Your task to perform on an android device: open a bookmark in the chrome app Image 0: 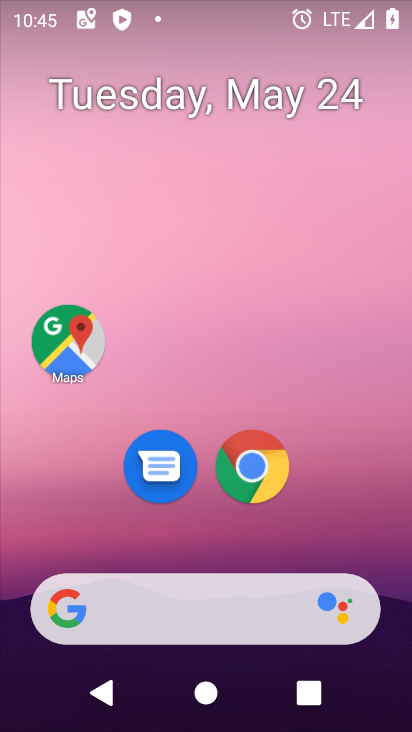
Step 0: drag from (384, 562) to (389, 175)
Your task to perform on an android device: open a bookmark in the chrome app Image 1: 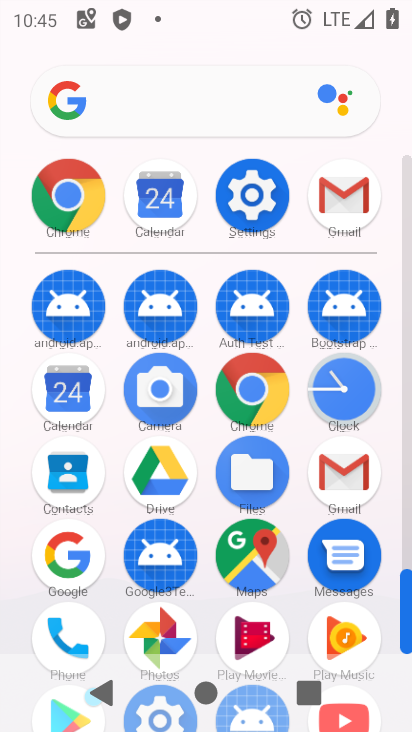
Step 1: click (271, 410)
Your task to perform on an android device: open a bookmark in the chrome app Image 2: 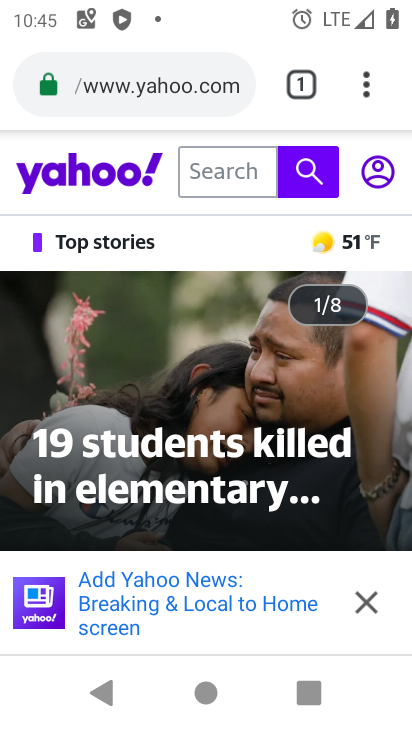
Step 2: click (368, 85)
Your task to perform on an android device: open a bookmark in the chrome app Image 3: 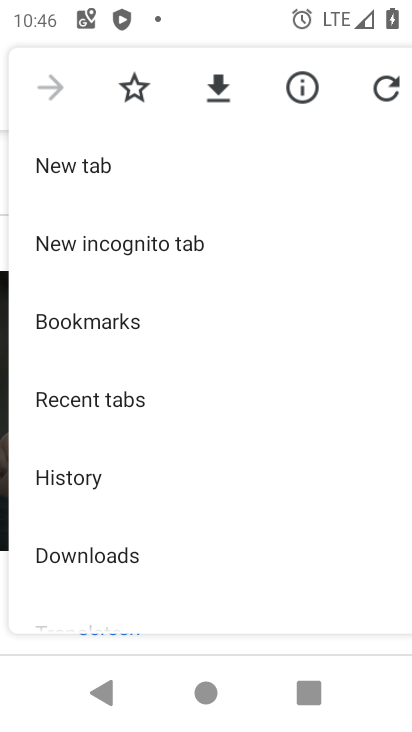
Step 3: drag from (331, 444) to (330, 391)
Your task to perform on an android device: open a bookmark in the chrome app Image 4: 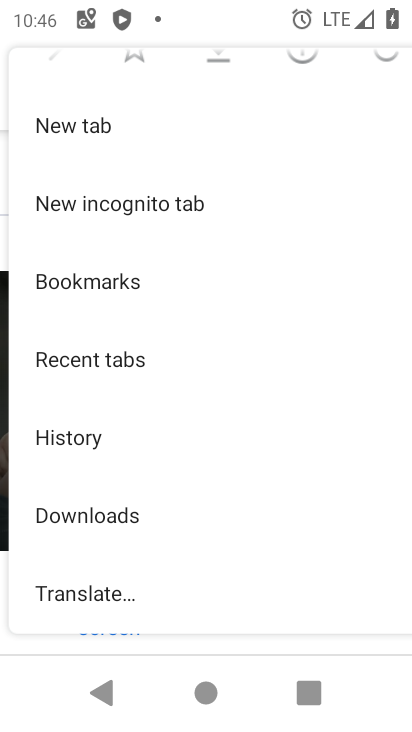
Step 4: drag from (321, 538) to (322, 438)
Your task to perform on an android device: open a bookmark in the chrome app Image 5: 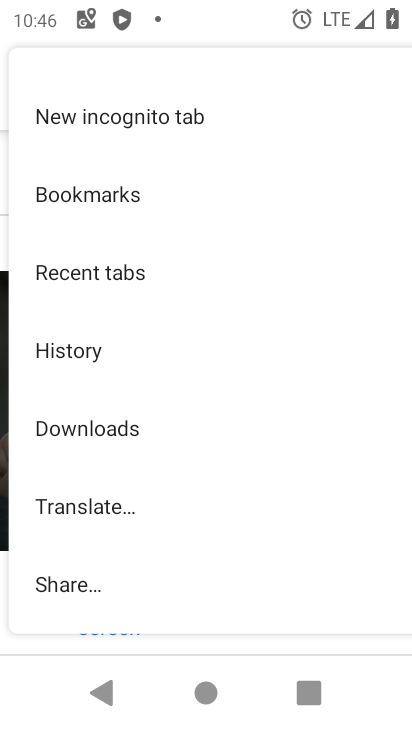
Step 5: drag from (310, 550) to (319, 451)
Your task to perform on an android device: open a bookmark in the chrome app Image 6: 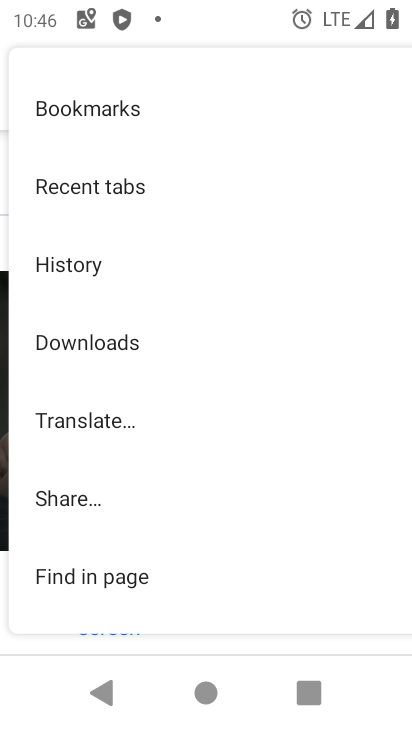
Step 6: drag from (315, 548) to (317, 444)
Your task to perform on an android device: open a bookmark in the chrome app Image 7: 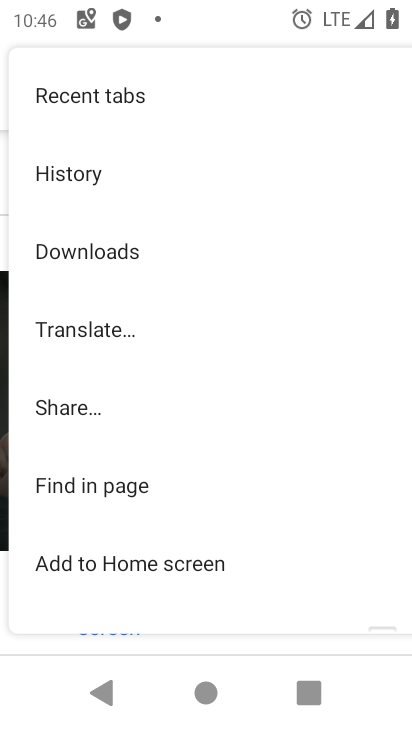
Step 7: drag from (321, 570) to (341, 468)
Your task to perform on an android device: open a bookmark in the chrome app Image 8: 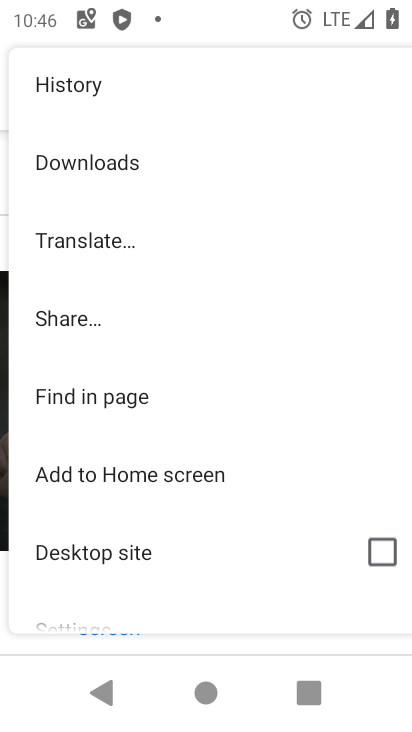
Step 8: drag from (317, 557) to (319, 443)
Your task to perform on an android device: open a bookmark in the chrome app Image 9: 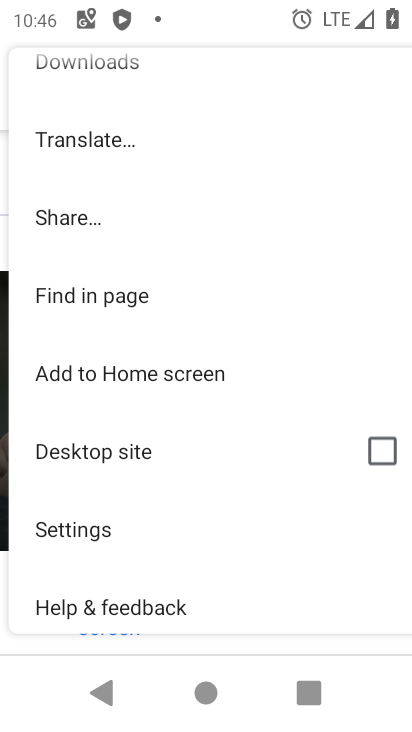
Step 9: drag from (301, 328) to (282, 427)
Your task to perform on an android device: open a bookmark in the chrome app Image 10: 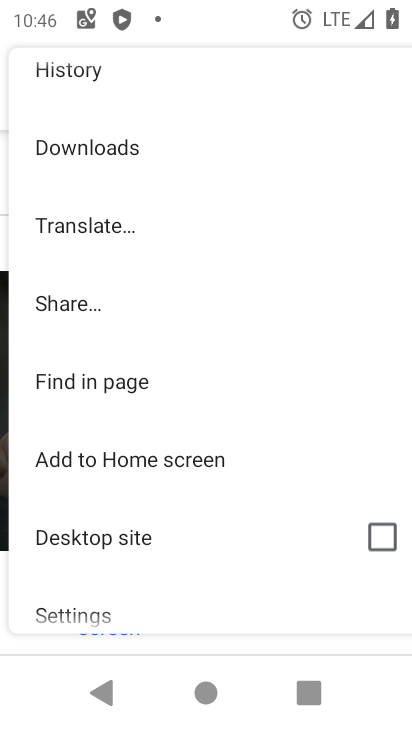
Step 10: drag from (285, 341) to (280, 433)
Your task to perform on an android device: open a bookmark in the chrome app Image 11: 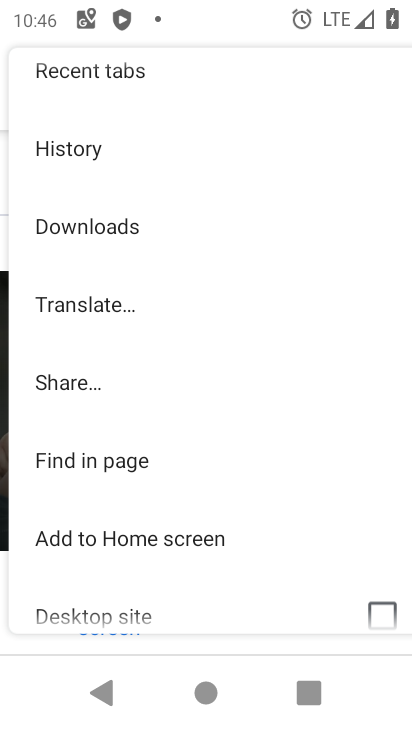
Step 11: drag from (263, 333) to (272, 436)
Your task to perform on an android device: open a bookmark in the chrome app Image 12: 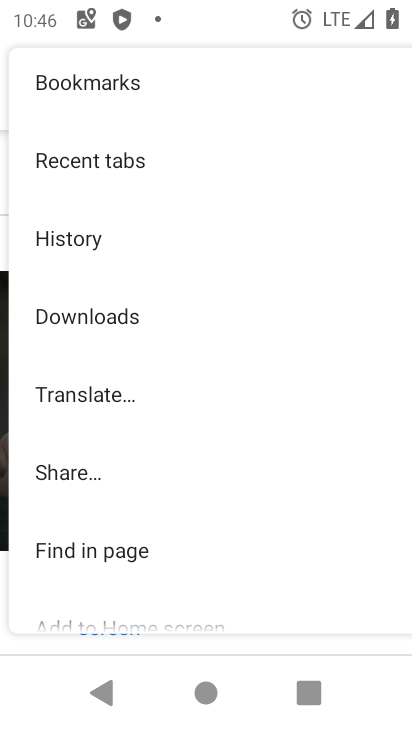
Step 12: drag from (269, 301) to (270, 402)
Your task to perform on an android device: open a bookmark in the chrome app Image 13: 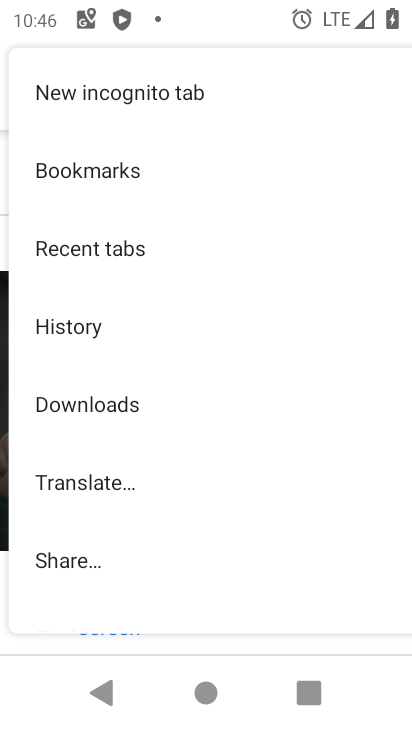
Step 13: click (137, 185)
Your task to perform on an android device: open a bookmark in the chrome app Image 14: 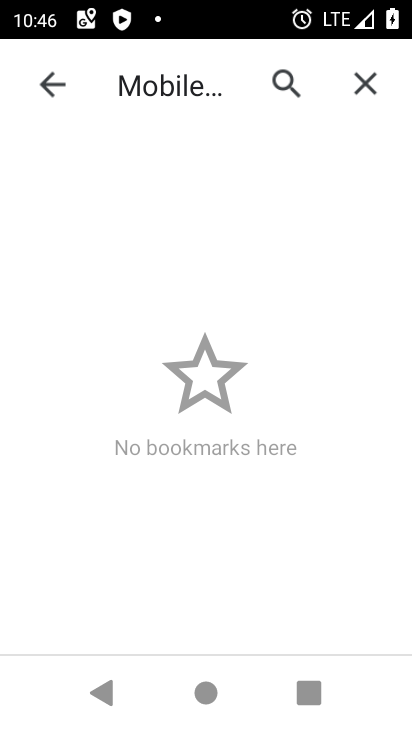
Step 14: task complete